Your task to perform on an android device: check the backup settings in the google photos Image 0: 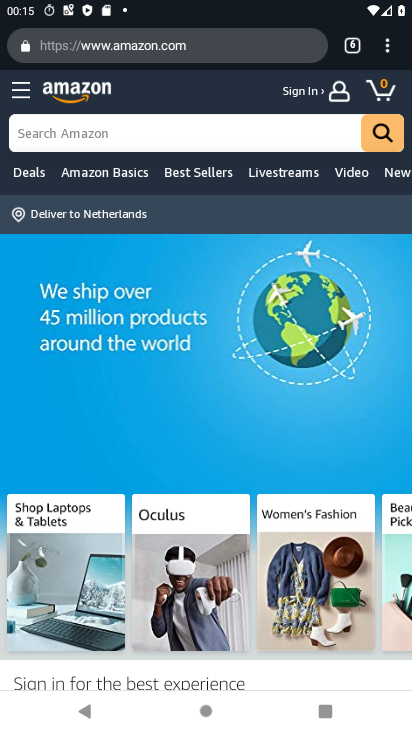
Step 0: press home button
Your task to perform on an android device: check the backup settings in the google photos Image 1: 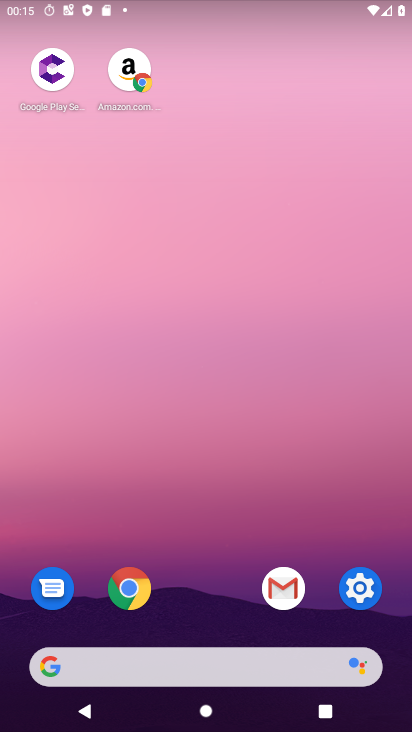
Step 1: drag from (289, 695) to (258, 381)
Your task to perform on an android device: check the backup settings in the google photos Image 2: 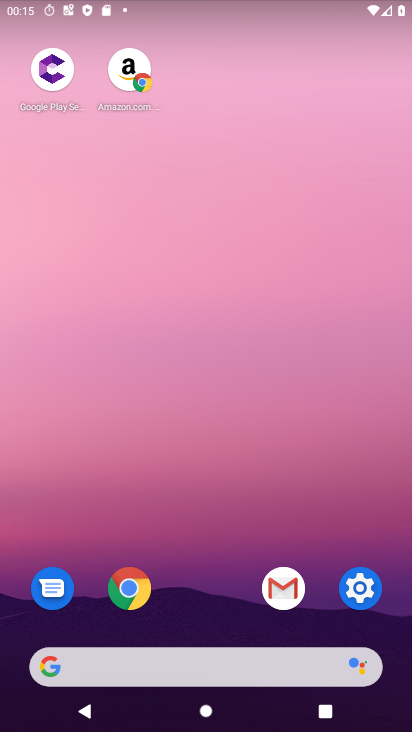
Step 2: drag from (274, 689) to (279, 174)
Your task to perform on an android device: check the backup settings in the google photos Image 3: 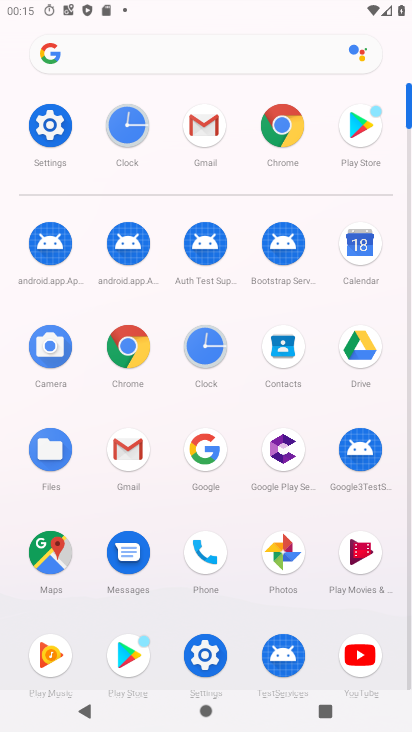
Step 3: click (289, 566)
Your task to perform on an android device: check the backup settings in the google photos Image 4: 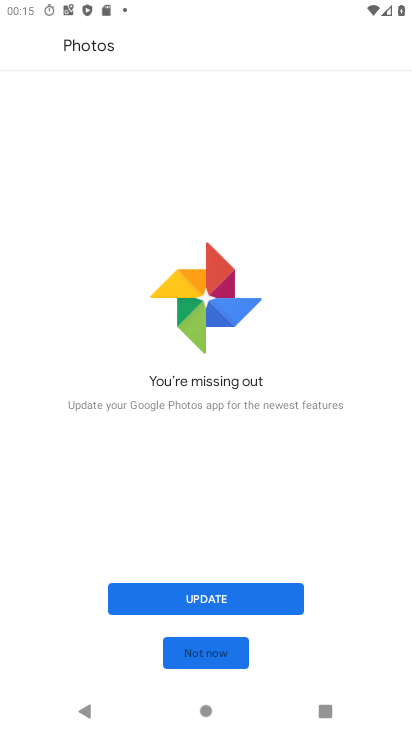
Step 4: click (320, 403)
Your task to perform on an android device: check the backup settings in the google photos Image 5: 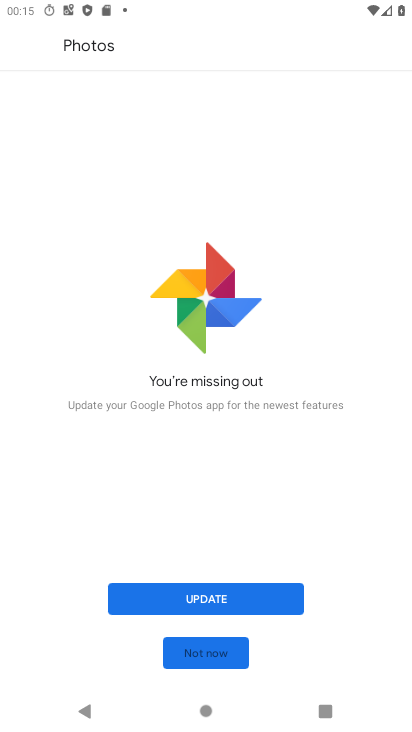
Step 5: click (244, 603)
Your task to perform on an android device: check the backup settings in the google photos Image 6: 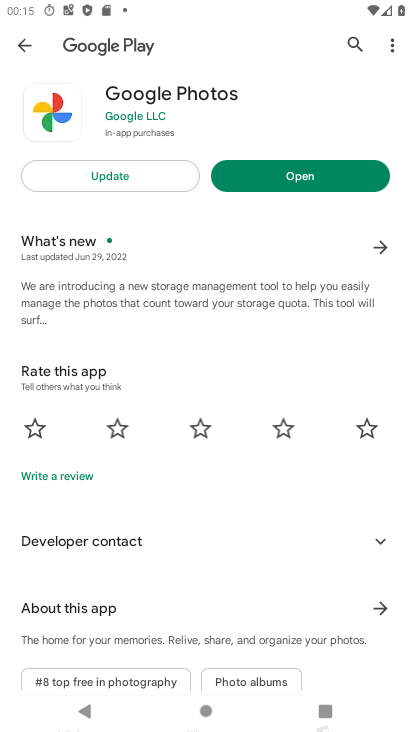
Step 6: click (289, 185)
Your task to perform on an android device: check the backup settings in the google photos Image 7: 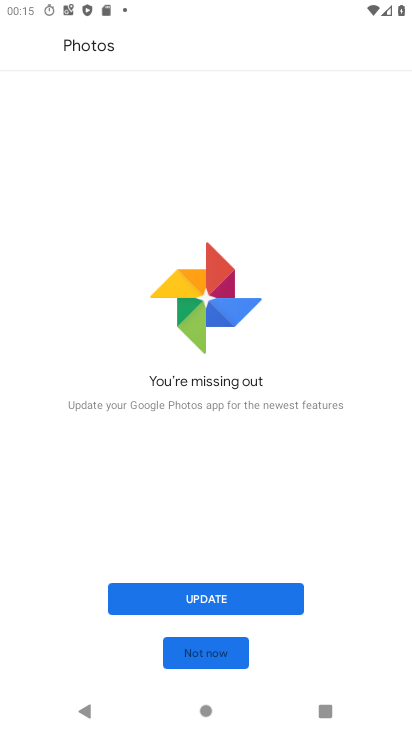
Step 7: click (241, 588)
Your task to perform on an android device: check the backup settings in the google photos Image 8: 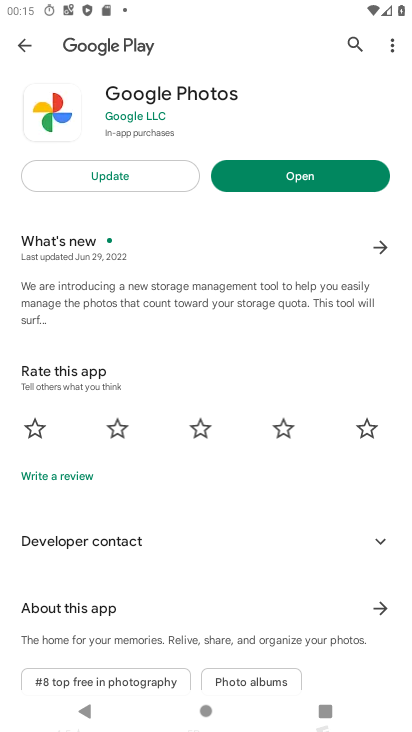
Step 8: click (103, 168)
Your task to perform on an android device: check the backup settings in the google photos Image 9: 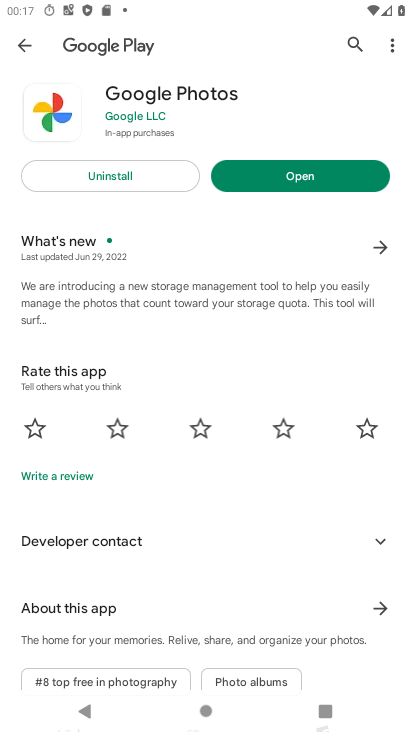
Step 9: click (365, 170)
Your task to perform on an android device: check the backup settings in the google photos Image 10: 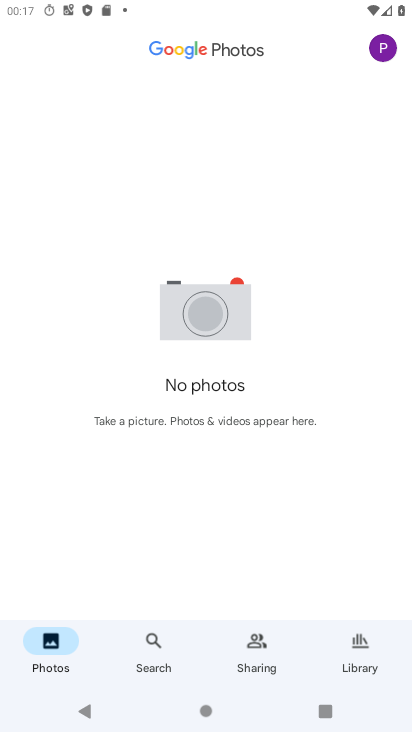
Step 10: click (376, 54)
Your task to perform on an android device: check the backup settings in the google photos Image 11: 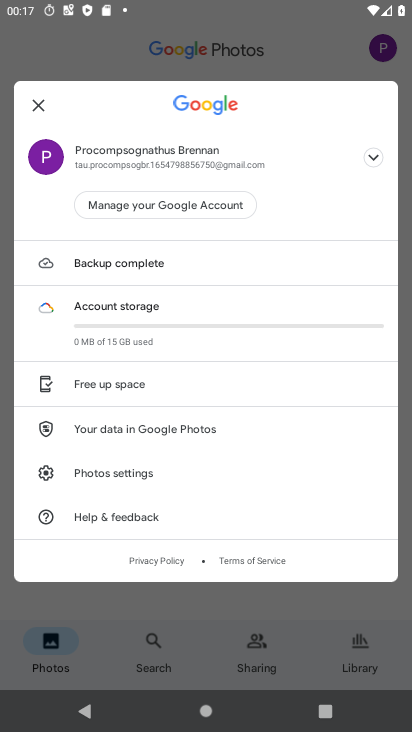
Step 11: click (128, 271)
Your task to perform on an android device: check the backup settings in the google photos Image 12: 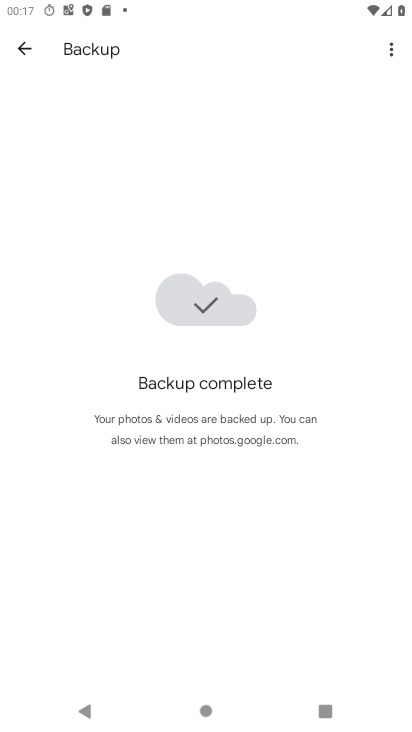
Step 12: task complete